Your task to perform on an android device: turn on translation in the chrome app Image 0: 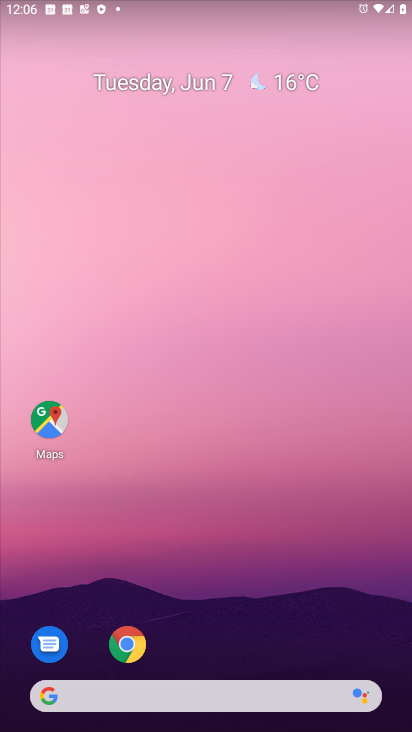
Step 0: drag from (190, 458) to (156, 106)
Your task to perform on an android device: turn on translation in the chrome app Image 1: 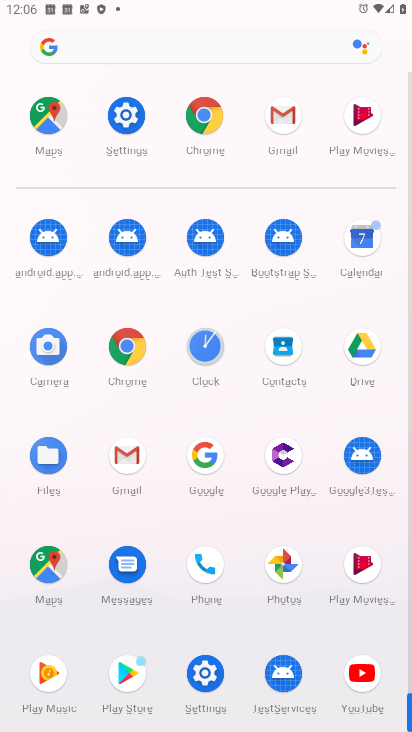
Step 1: click (136, 376)
Your task to perform on an android device: turn on translation in the chrome app Image 2: 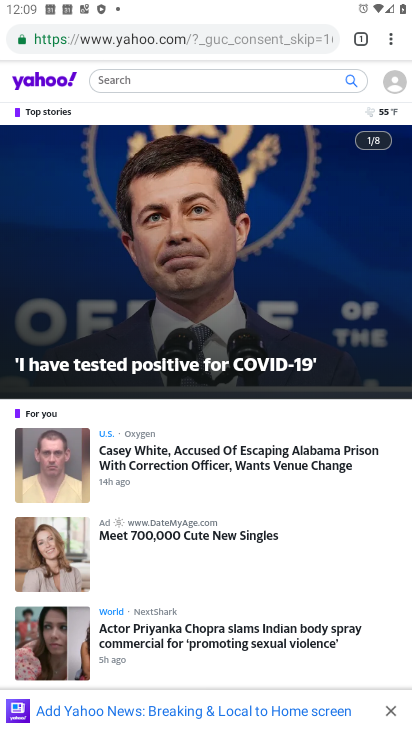
Step 2: click (386, 41)
Your task to perform on an android device: turn on translation in the chrome app Image 3: 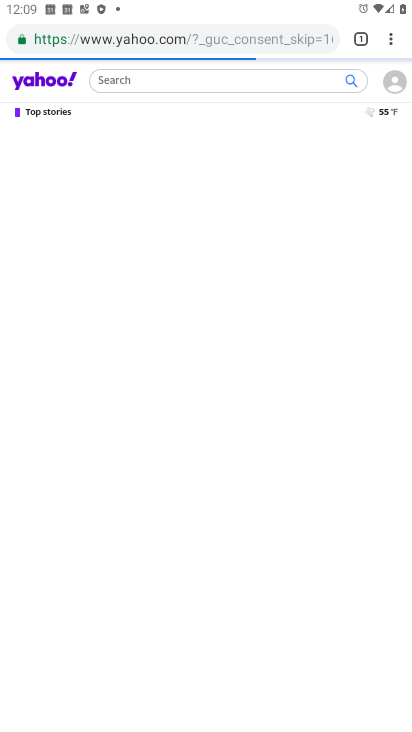
Step 3: click (394, 47)
Your task to perform on an android device: turn on translation in the chrome app Image 4: 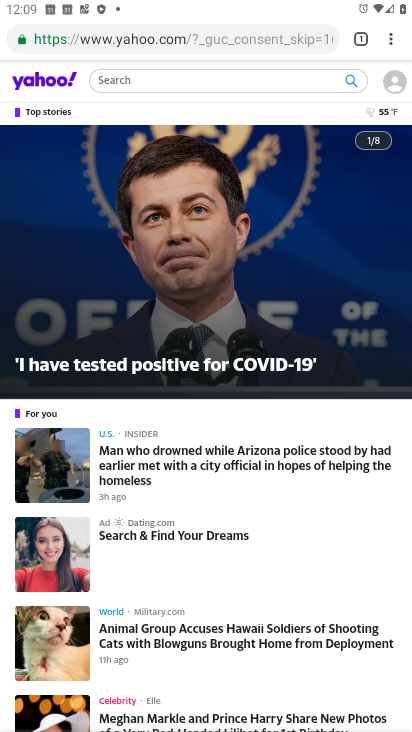
Step 4: click (394, 44)
Your task to perform on an android device: turn on translation in the chrome app Image 5: 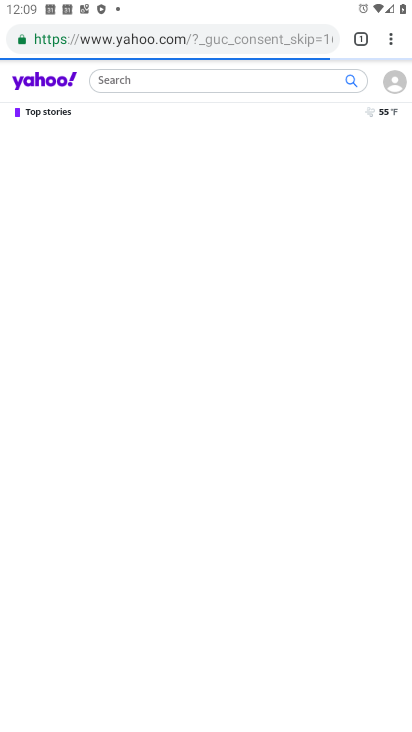
Step 5: click (388, 39)
Your task to perform on an android device: turn on translation in the chrome app Image 6: 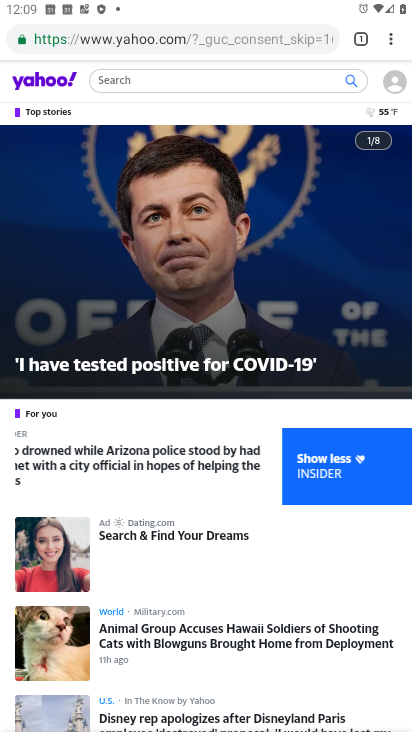
Step 6: click (394, 39)
Your task to perform on an android device: turn on translation in the chrome app Image 7: 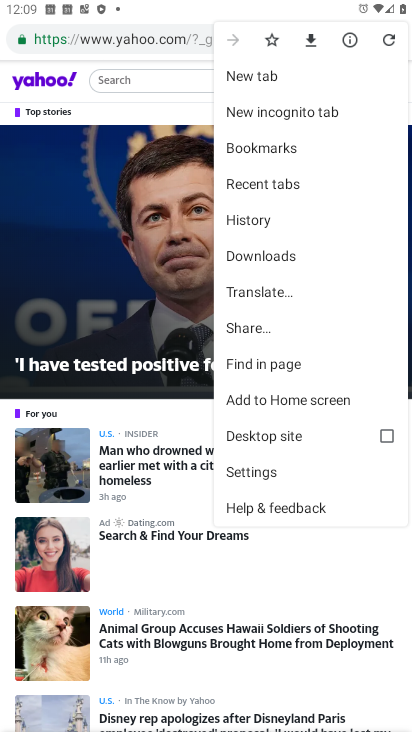
Step 7: click (263, 472)
Your task to perform on an android device: turn on translation in the chrome app Image 8: 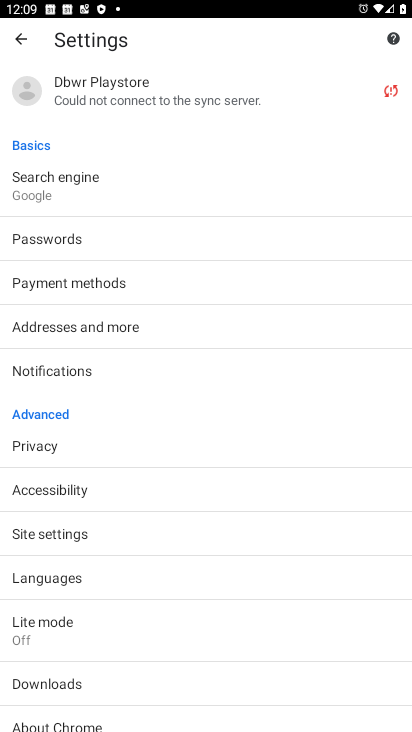
Step 8: click (74, 581)
Your task to perform on an android device: turn on translation in the chrome app Image 9: 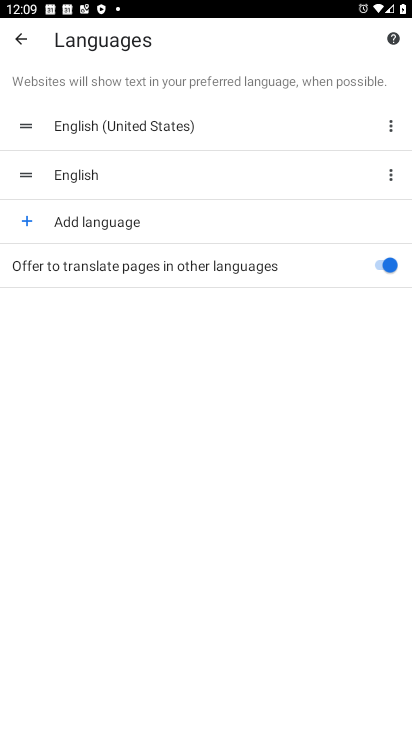
Step 9: task complete